Your task to perform on an android device: Show me the alarms in the clock app Image 0: 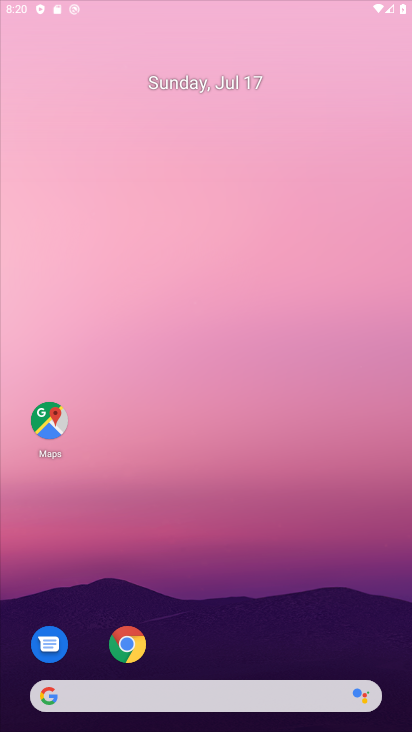
Step 0: click (177, 109)
Your task to perform on an android device: Show me the alarms in the clock app Image 1: 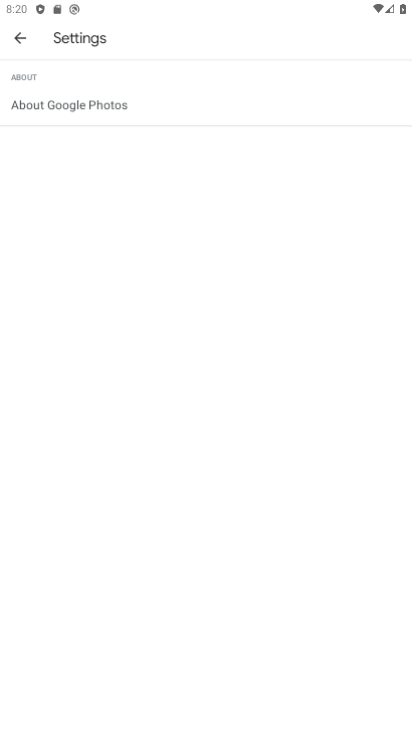
Step 1: drag from (247, 517) to (148, 43)
Your task to perform on an android device: Show me the alarms in the clock app Image 2: 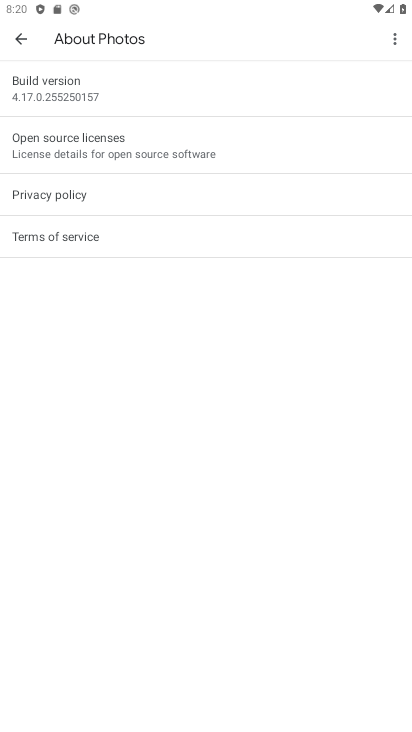
Step 2: press home button
Your task to perform on an android device: Show me the alarms in the clock app Image 3: 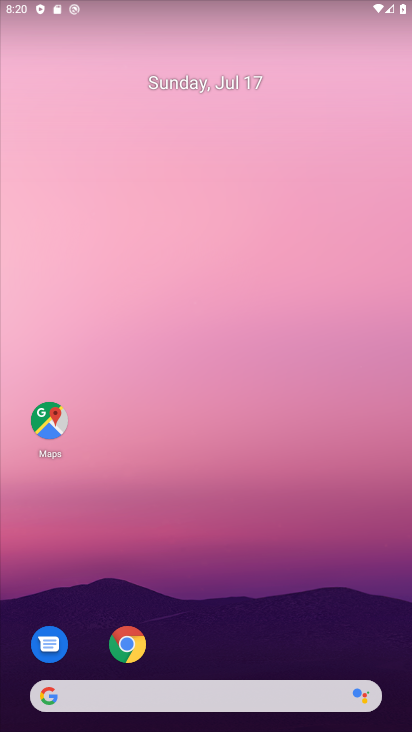
Step 3: drag from (259, 597) to (172, 59)
Your task to perform on an android device: Show me the alarms in the clock app Image 4: 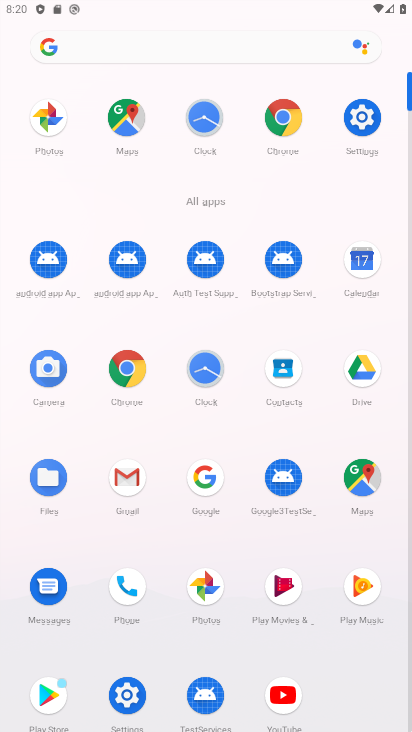
Step 4: click (205, 368)
Your task to perform on an android device: Show me the alarms in the clock app Image 5: 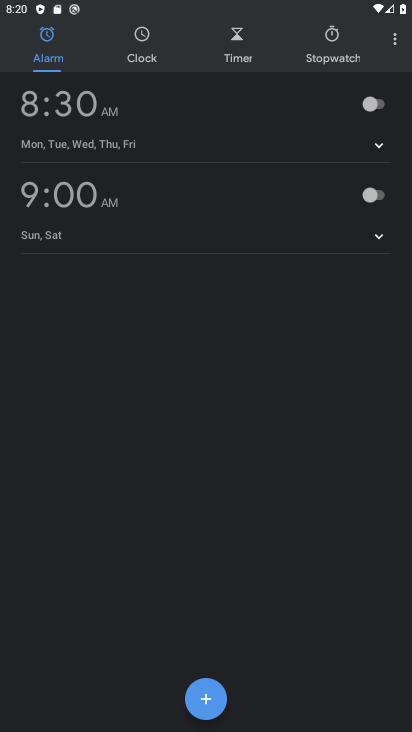
Step 5: task complete